Your task to perform on an android device: change your default location settings in chrome Image 0: 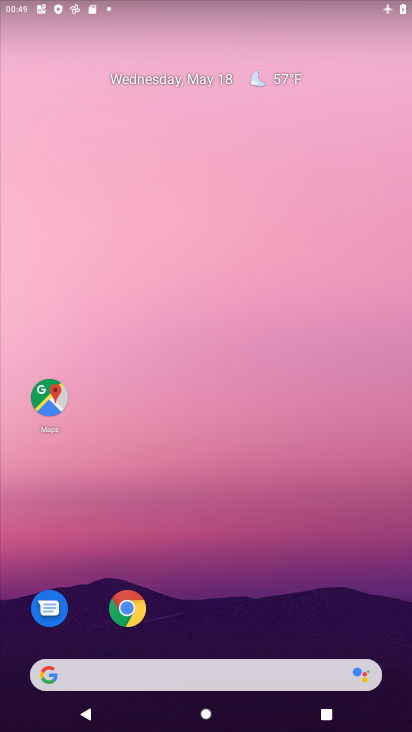
Step 0: click (127, 606)
Your task to perform on an android device: change your default location settings in chrome Image 1: 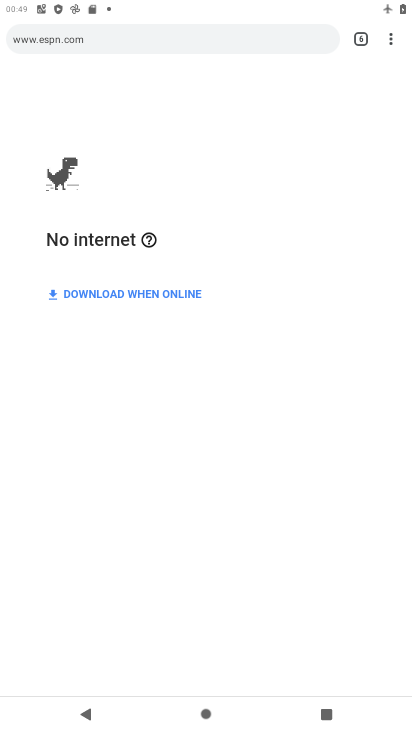
Step 1: click (387, 32)
Your task to perform on an android device: change your default location settings in chrome Image 2: 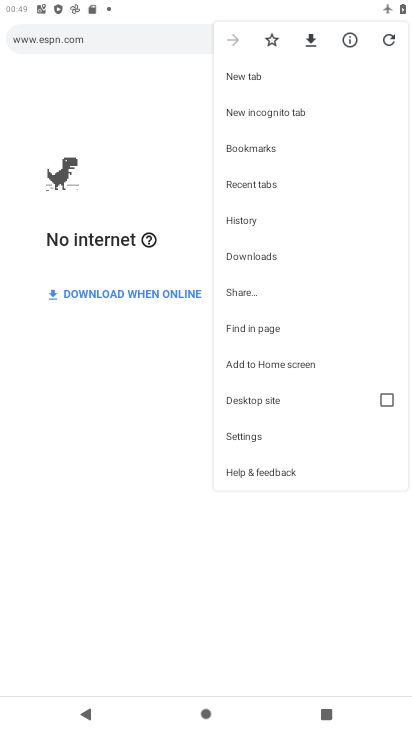
Step 2: click (247, 440)
Your task to perform on an android device: change your default location settings in chrome Image 3: 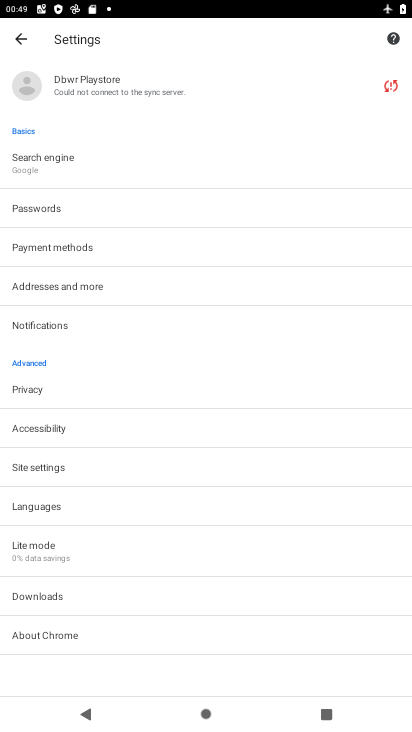
Step 3: drag from (135, 544) to (96, 302)
Your task to perform on an android device: change your default location settings in chrome Image 4: 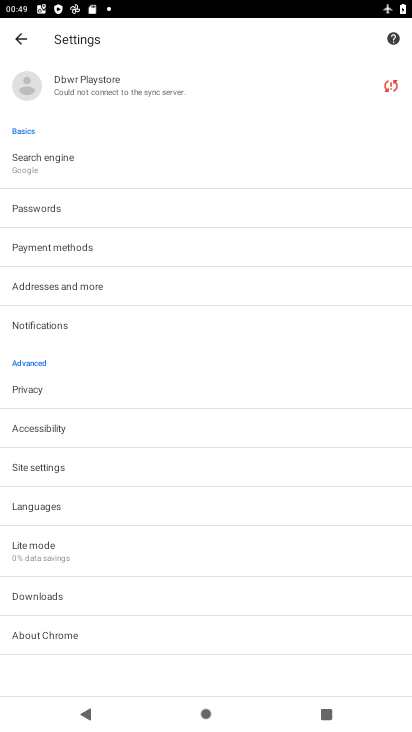
Step 4: click (34, 456)
Your task to perform on an android device: change your default location settings in chrome Image 5: 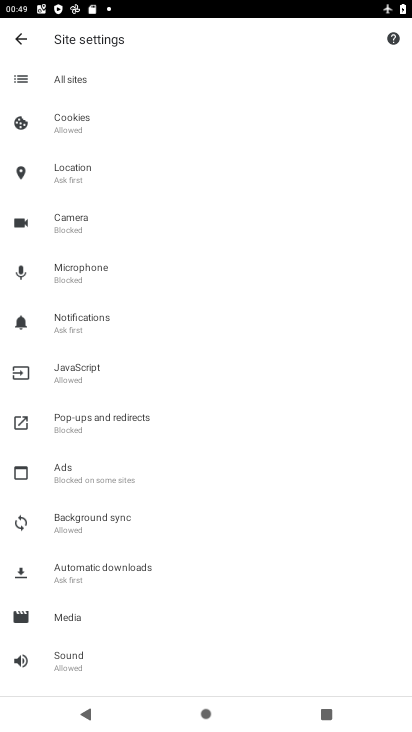
Step 5: click (67, 164)
Your task to perform on an android device: change your default location settings in chrome Image 6: 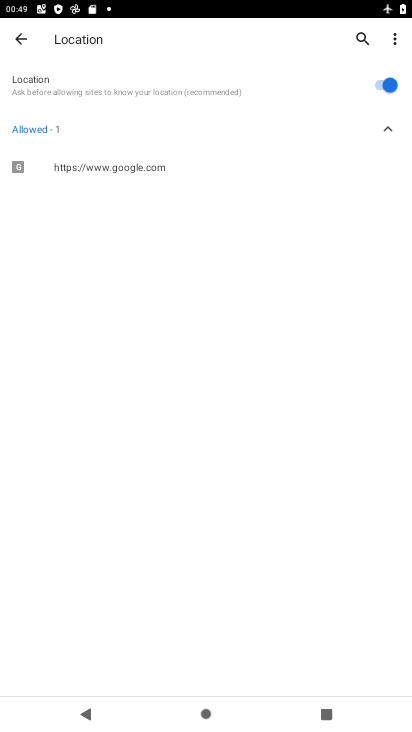
Step 6: click (384, 88)
Your task to perform on an android device: change your default location settings in chrome Image 7: 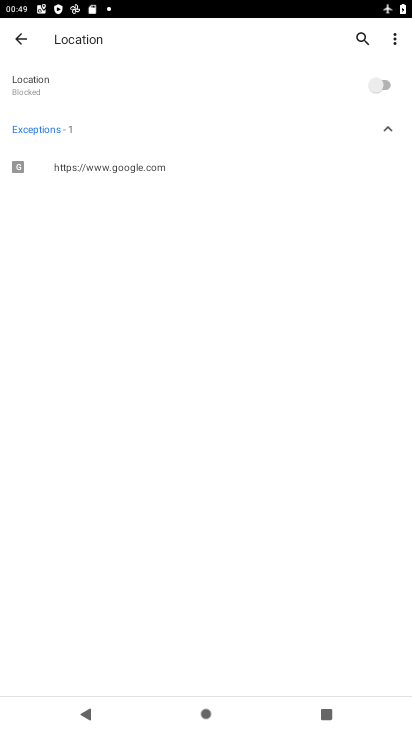
Step 7: task complete